Your task to perform on an android device: change the clock display to digital Image 0: 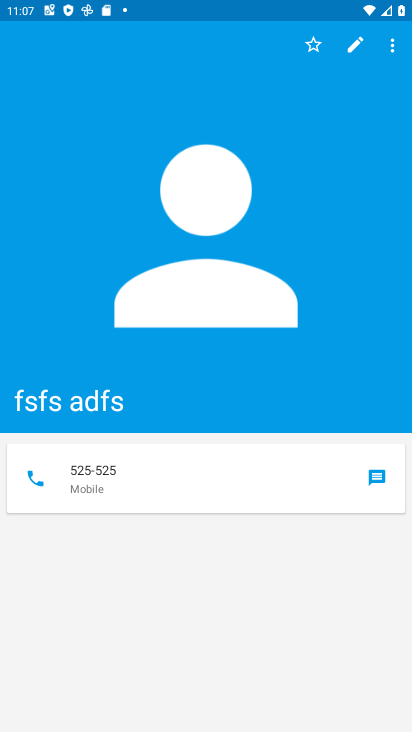
Step 0: press home button
Your task to perform on an android device: change the clock display to digital Image 1: 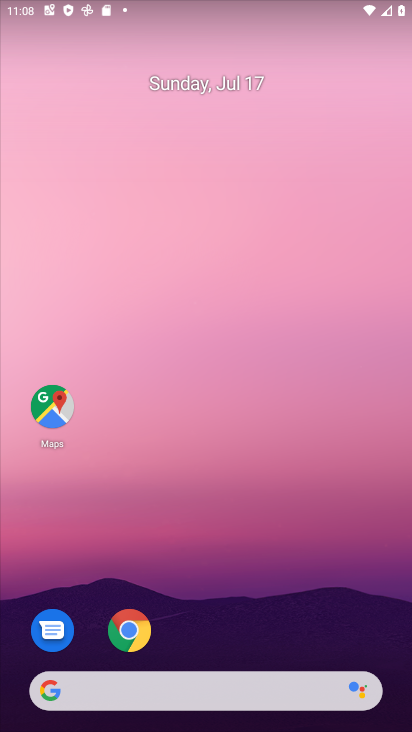
Step 1: drag from (254, 665) to (226, 37)
Your task to perform on an android device: change the clock display to digital Image 2: 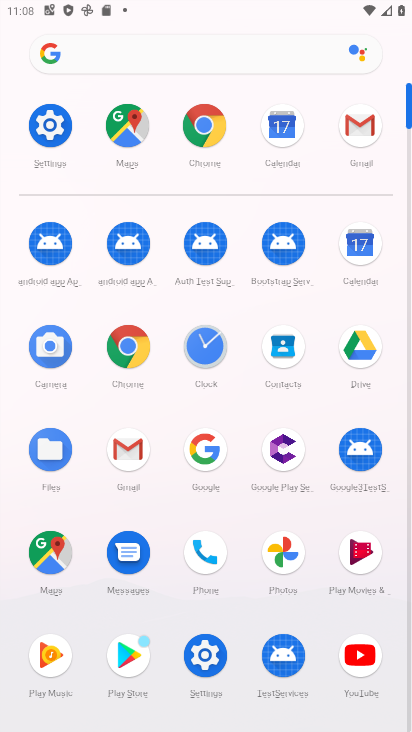
Step 2: click (211, 332)
Your task to perform on an android device: change the clock display to digital Image 3: 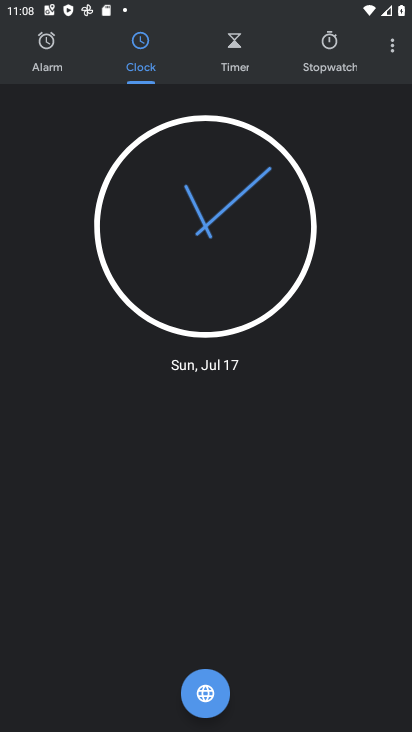
Step 3: click (396, 57)
Your task to perform on an android device: change the clock display to digital Image 4: 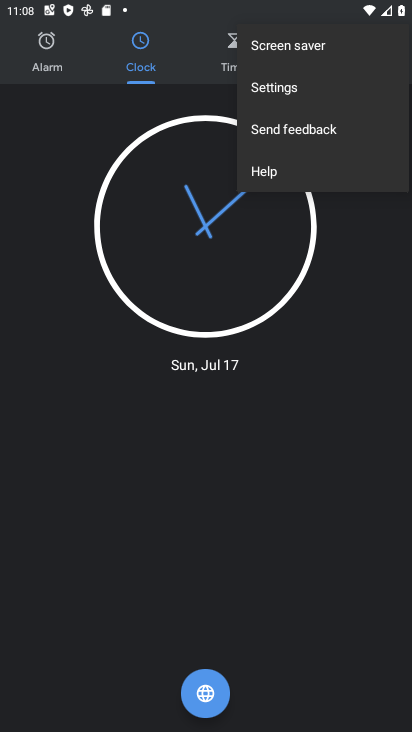
Step 4: click (272, 97)
Your task to perform on an android device: change the clock display to digital Image 5: 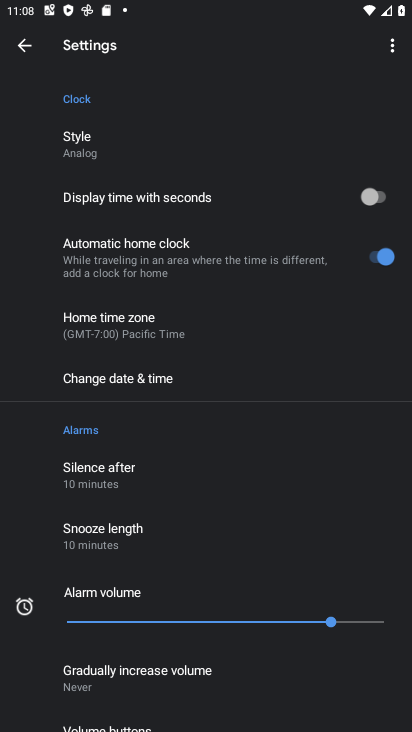
Step 5: click (94, 135)
Your task to perform on an android device: change the clock display to digital Image 6: 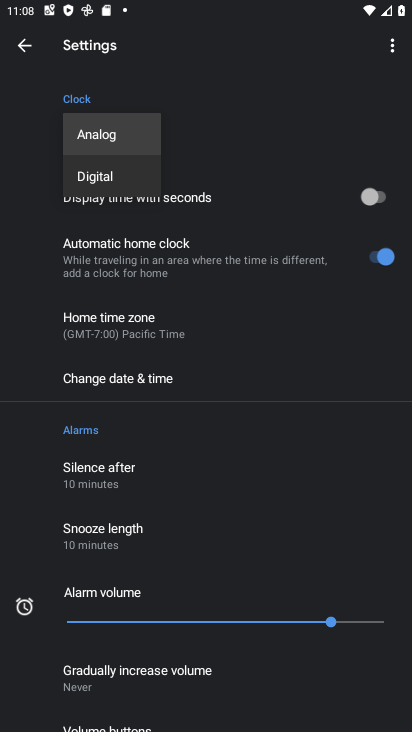
Step 6: click (121, 170)
Your task to perform on an android device: change the clock display to digital Image 7: 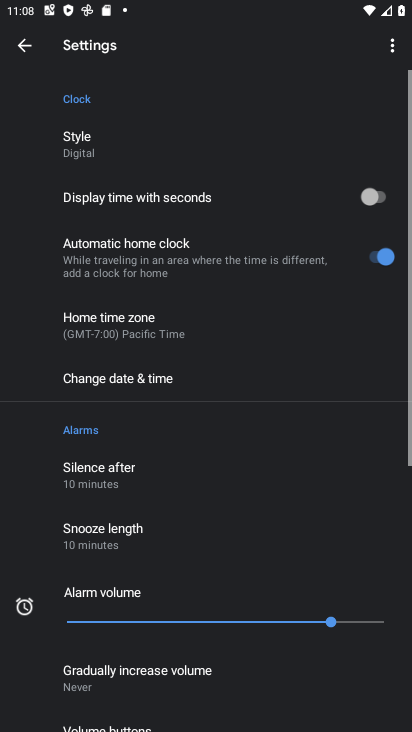
Step 7: task complete